Your task to perform on an android device: open app "Spotify: Music and Podcasts" (install if not already installed) Image 0: 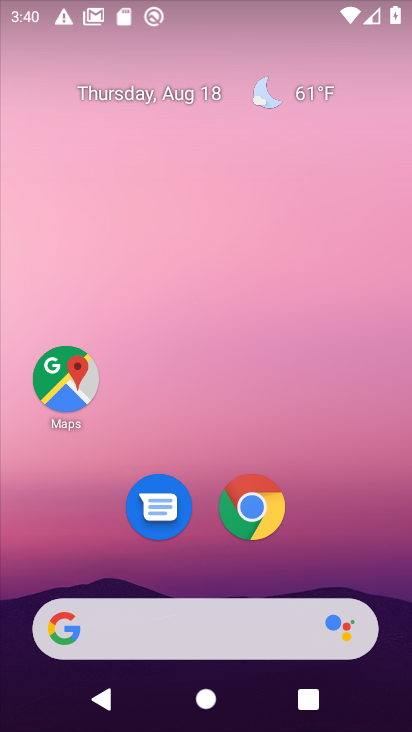
Step 0: drag from (235, 469) to (227, 0)
Your task to perform on an android device: open app "Spotify: Music and Podcasts" (install if not already installed) Image 1: 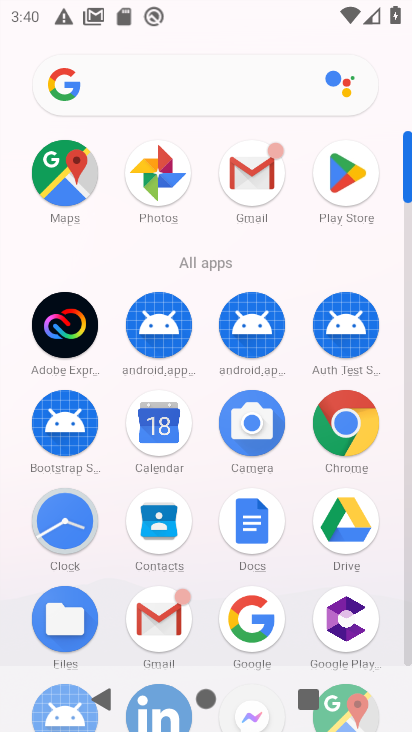
Step 1: drag from (206, 570) to (262, 63)
Your task to perform on an android device: open app "Spotify: Music and Podcasts" (install if not already installed) Image 2: 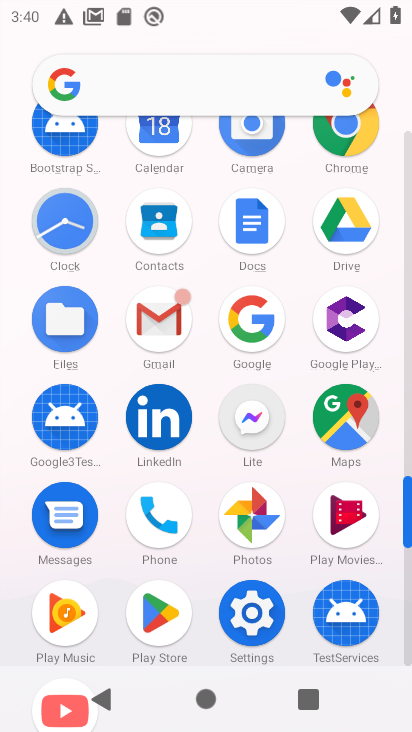
Step 2: click (171, 622)
Your task to perform on an android device: open app "Spotify: Music and Podcasts" (install if not already installed) Image 3: 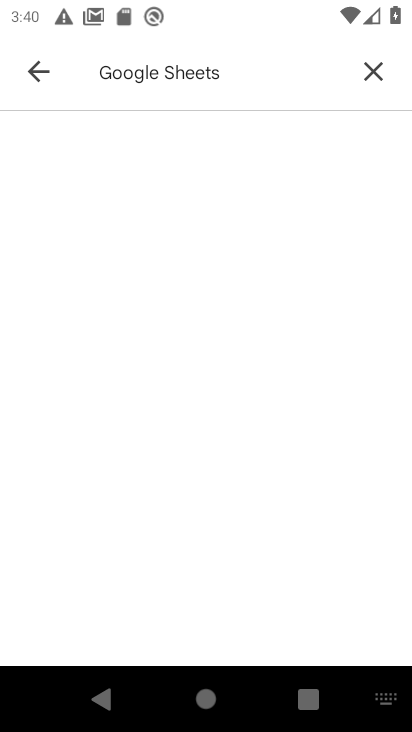
Step 3: click (361, 73)
Your task to perform on an android device: open app "Spotify: Music and Podcasts" (install if not already installed) Image 4: 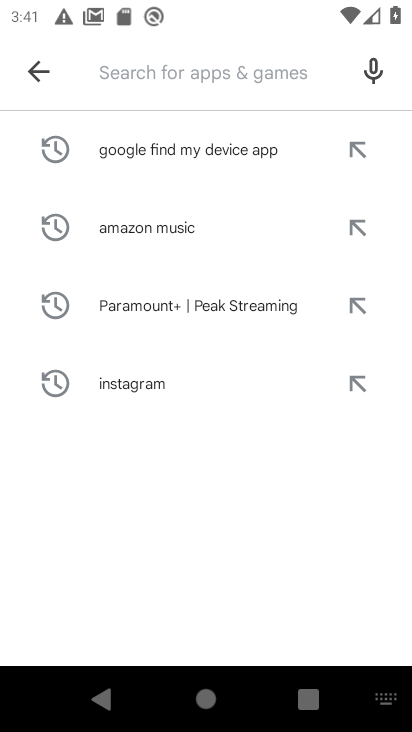
Step 4: click (213, 516)
Your task to perform on an android device: open app "Spotify: Music and Podcasts" (install if not already installed) Image 5: 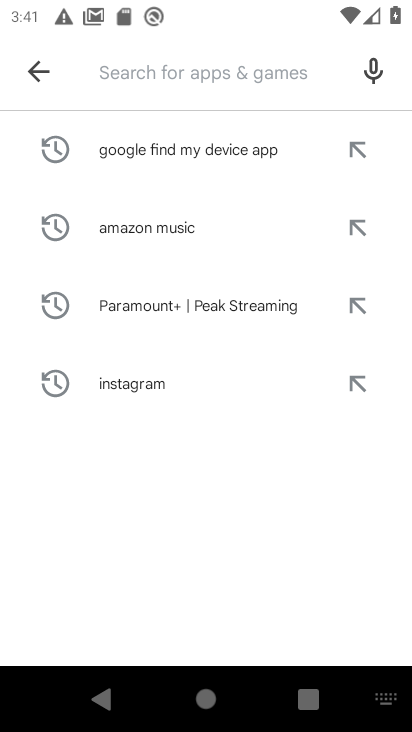
Step 5: type "Spotify: Music and Podcasts"
Your task to perform on an android device: open app "Spotify: Music and Podcasts" (install if not already installed) Image 6: 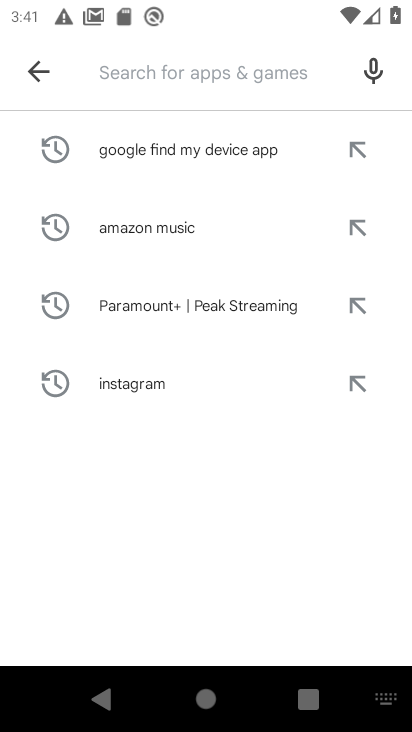
Step 6: click (213, 516)
Your task to perform on an android device: open app "Spotify: Music and Podcasts" (install if not already installed) Image 7: 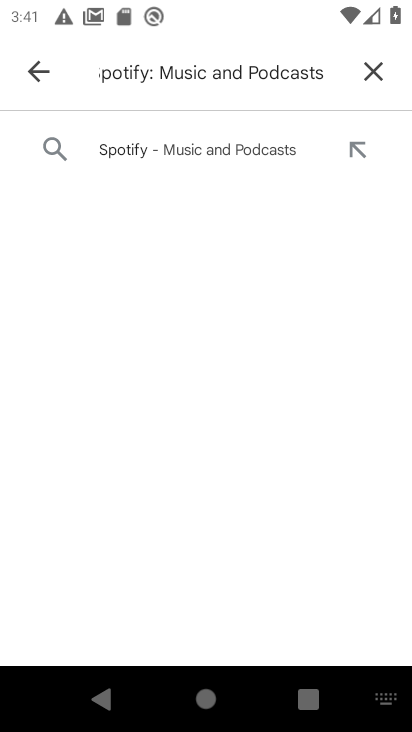
Step 7: click (186, 147)
Your task to perform on an android device: open app "Spotify: Music and Podcasts" (install if not already installed) Image 8: 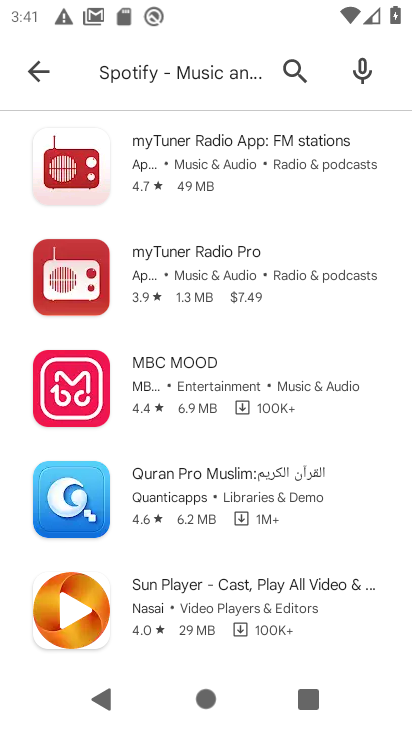
Step 8: task complete